Your task to perform on an android device: Open calendar and show me the fourth week of next month Image 0: 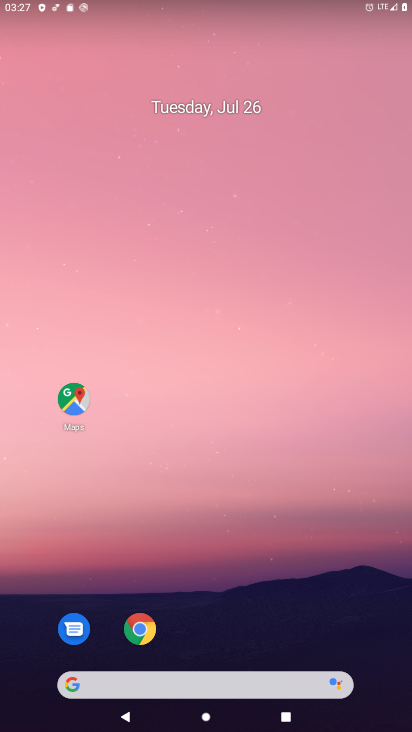
Step 0: drag from (238, 582) to (255, 107)
Your task to perform on an android device: Open calendar and show me the fourth week of next month Image 1: 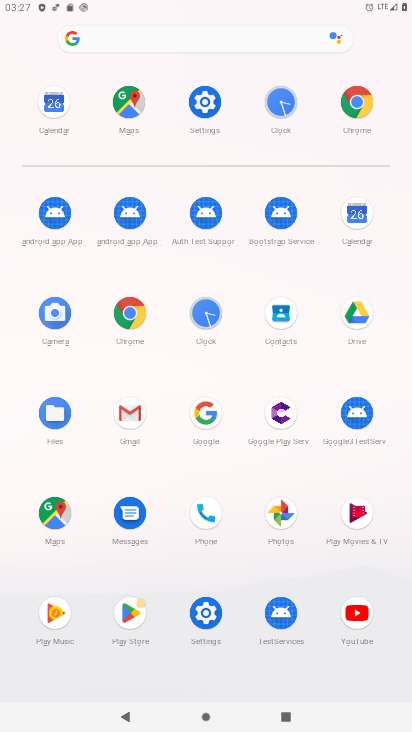
Step 1: click (347, 215)
Your task to perform on an android device: Open calendar and show me the fourth week of next month Image 2: 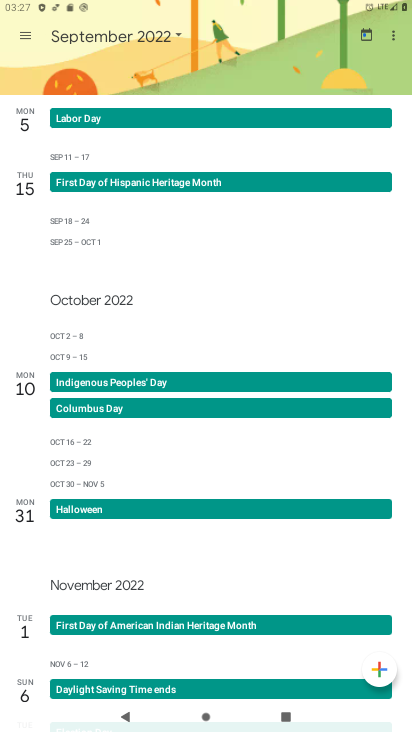
Step 2: click (149, 36)
Your task to perform on an android device: Open calendar and show me the fourth week of next month Image 3: 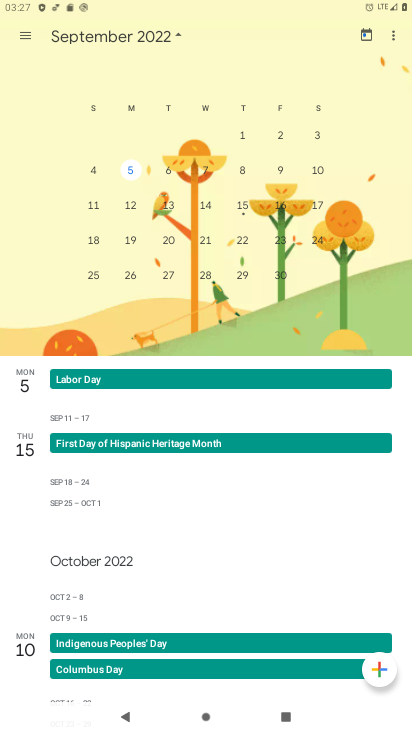
Step 3: drag from (10, 157) to (411, 196)
Your task to perform on an android device: Open calendar and show me the fourth week of next month Image 4: 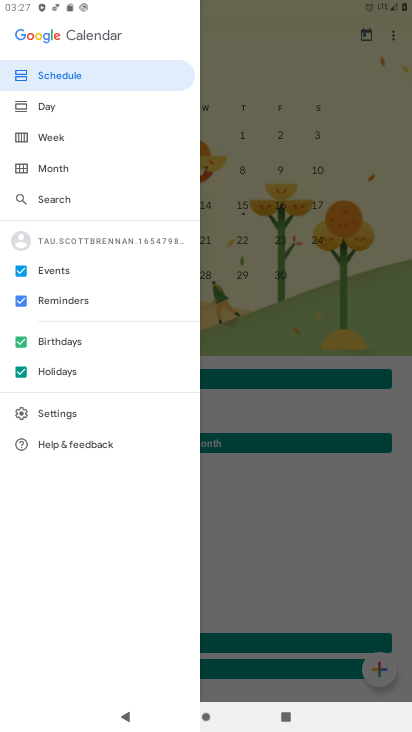
Step 4: click (291, 63)
Your task to perform on an android device: Open calendar and show me the fourth week of next month Image 5: 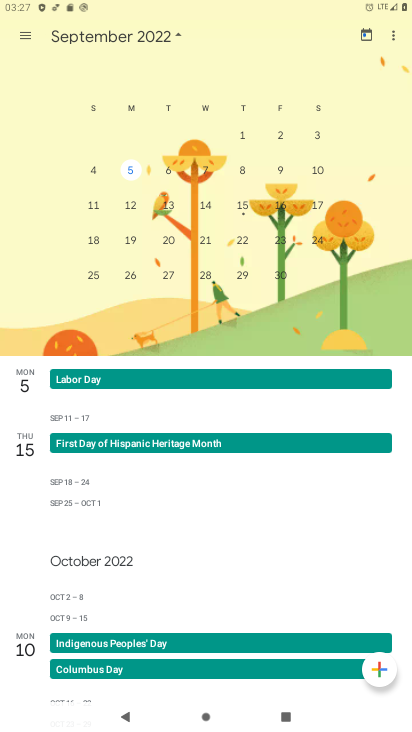
Step 5: drag from (88, 195) to (353, 193)
Your task to perform on an android device: Open calendar and show me the fourth week of next month Image 6: 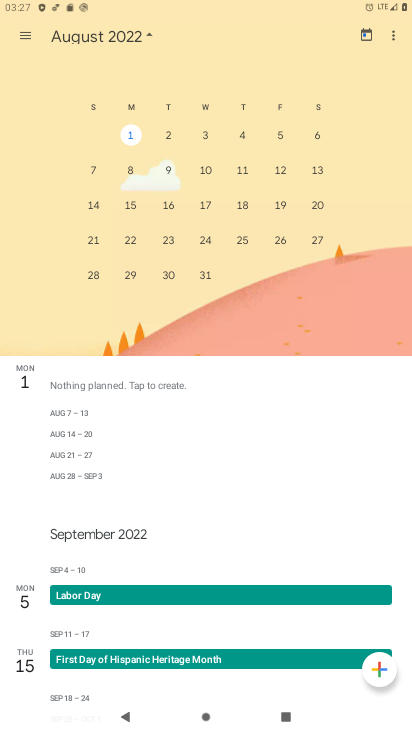
Step 6: drag from (89, 182) to (411, 205)
Your task to perform on an android device: Open calendar and show me the fourth week of next month Image 7: 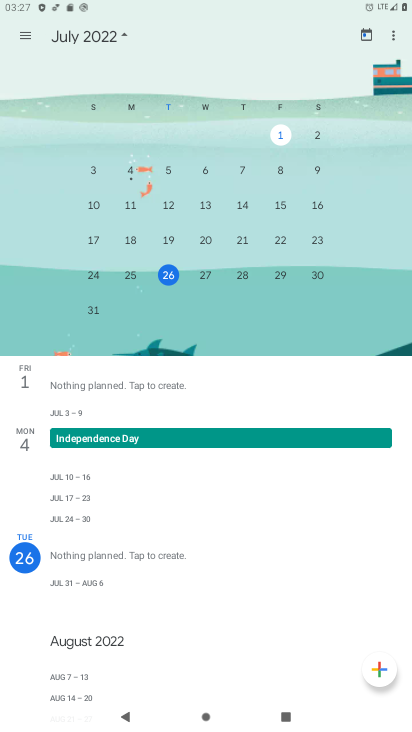
Step 7: drag from (340, 216) to (6, 201)
Your task to perform on an android device: Open calendar and show me the fourth week of next month Image 8: 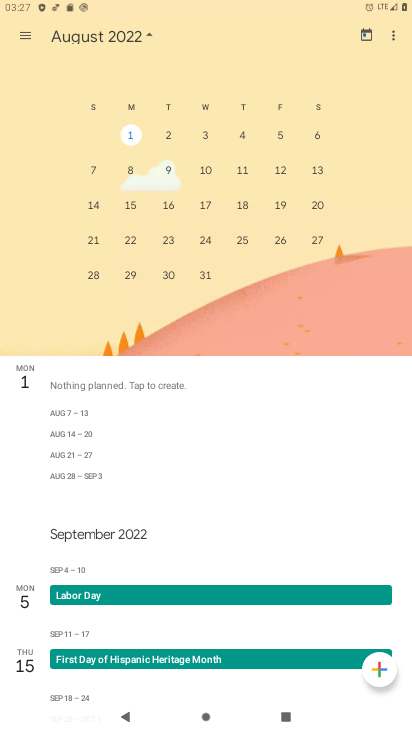
Step 8: click (166, 266)
Your task to perform on an android device: Open calendar and show me the fourth week of next month Image 9: 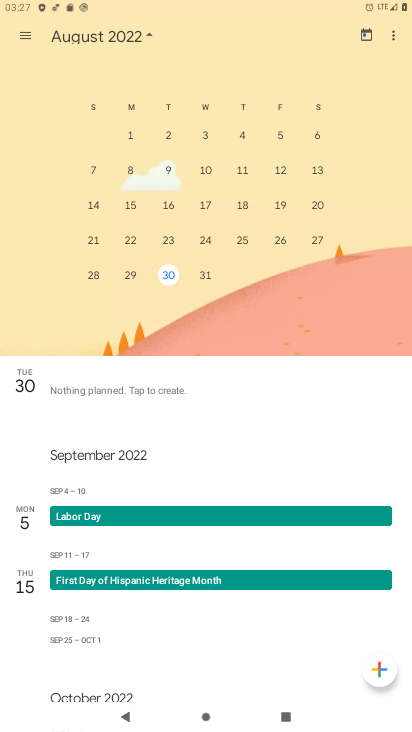
Step 9: task complete